Your task to perform on an android device: Play the last video I watched on Youtube Image 0: 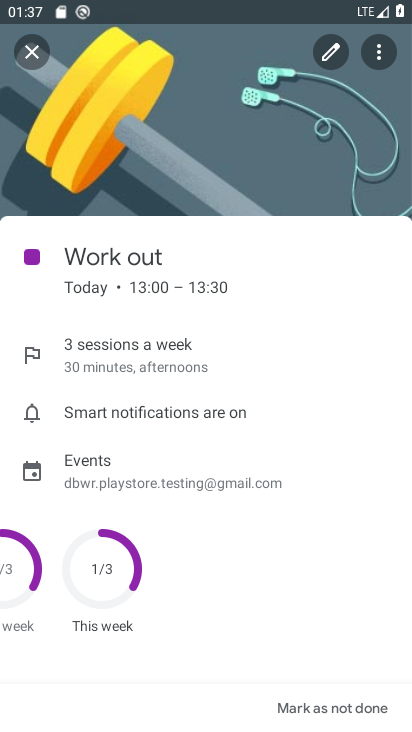
Step 0: press home button
Your task to perform on an android device: Play the last video I watched on Youtube Image 1: 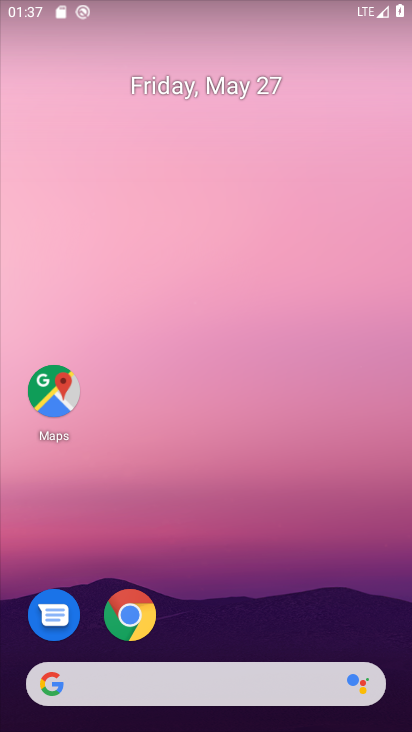
Step 1: drag from (338, 620) to (311, 63)
Your task to perform on an android device: Play the last video I watched on Youtube Image 2: 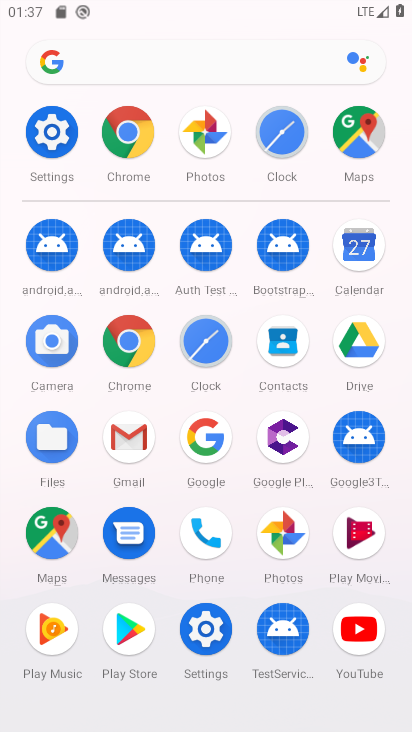
Step 2: click (347, 633)
Your task to perform on an android device: Play the last video I watched on Youtube Image 3: 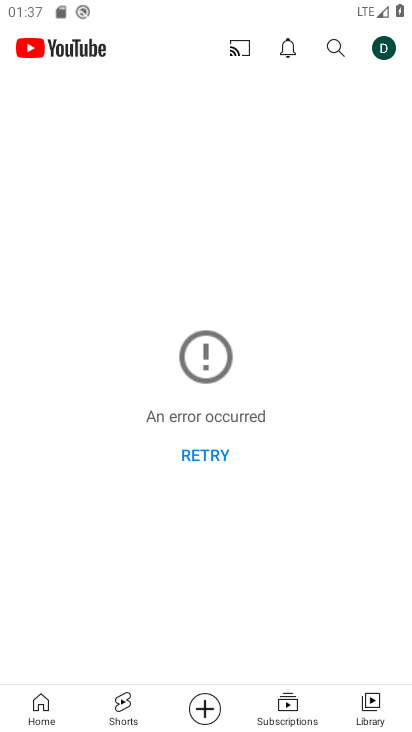
Step 3: click (363, 705)
Your task to perform on an android device: Play the last video I watched on Youtube Image 4: 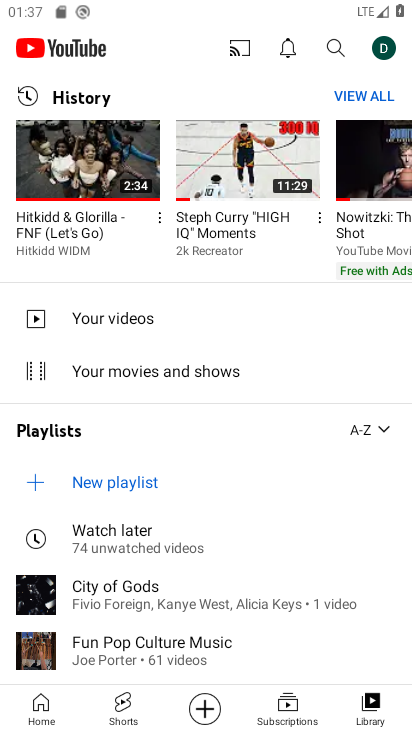
Step 4: click (100, 179)
Your task to perform on an android device: Play the last video I watched on Youtube Image 5: 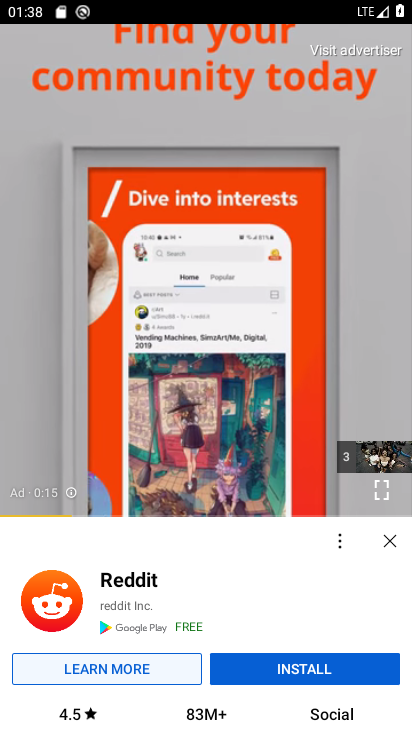
Step 5: task complete